Your task to perform on an android device: Go to wifi settings Image 0: 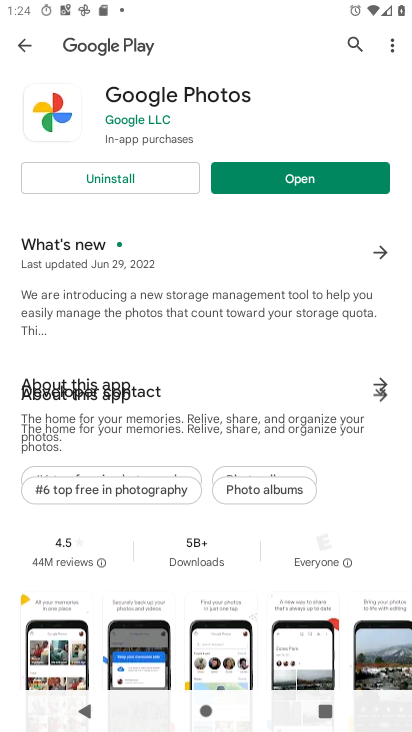
Step 0: press home button
Your task to perform on an android device: Go to wifi settings Image 1: 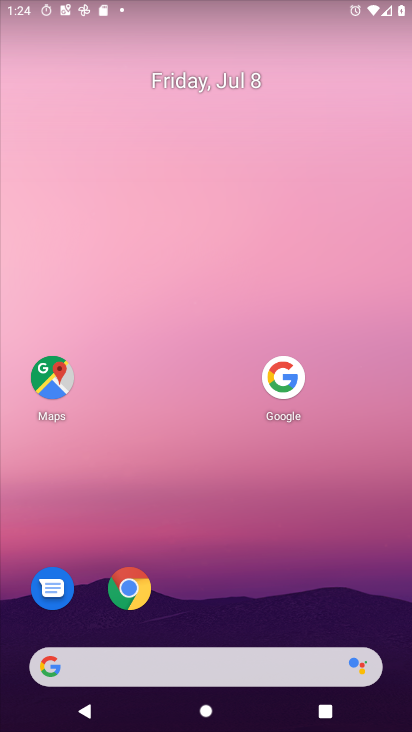
Step 1: drag from (203, 665) to (394, 105)
Your task to perform on an android device: Go to wifi settings Image 2: 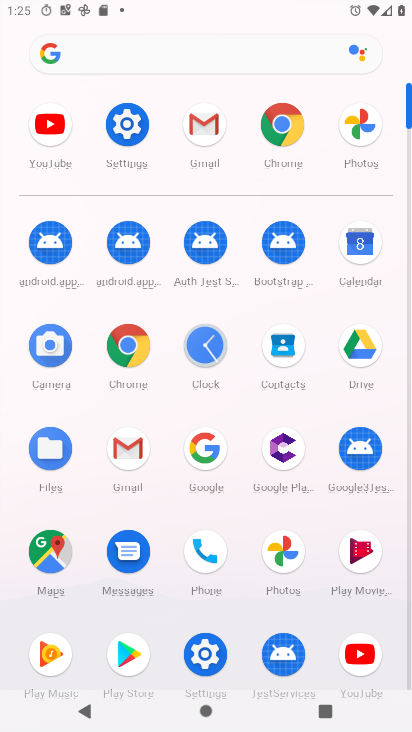
Step 2: click (134, 137)
Your task to perform on an android device: Go to wifi settings Image 3: 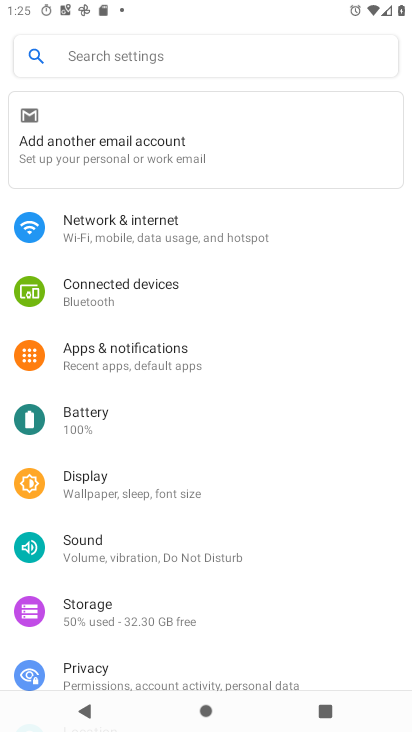
Step 3: click (142, 222)
Your task to perform on an android device: Go to wifi settings Image 4: 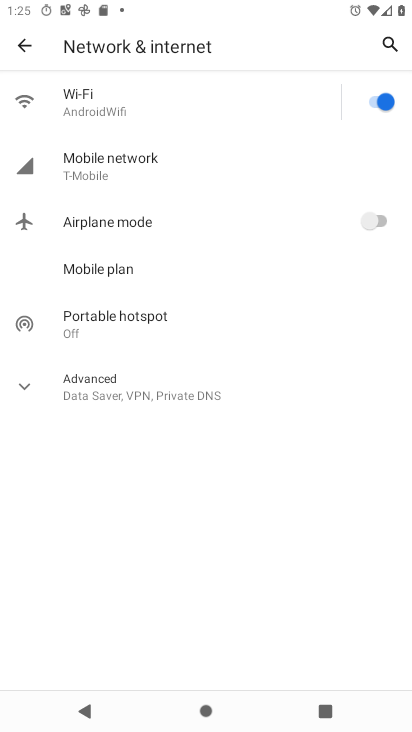
Step 4: task complete